Your task to perform on an android device: create a new album in the google photos Image 0: 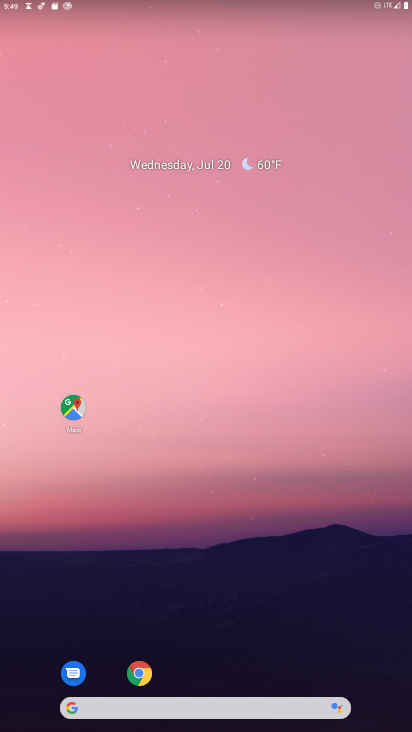
Step 0: drag from (199, 637) to (186, 116)
Your task to perform on an android device: create a new album in the google photos Image 1: 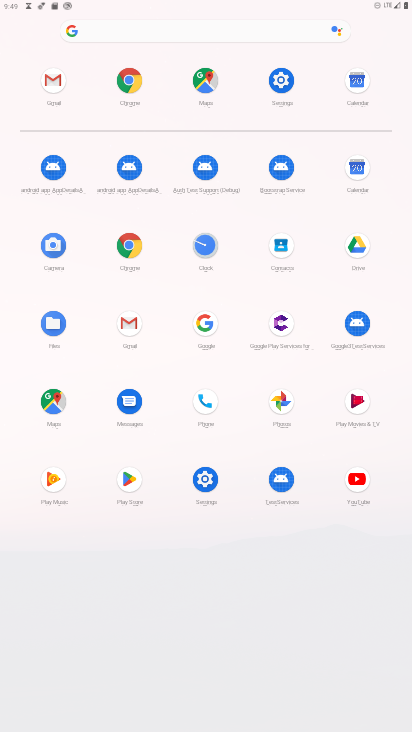
Step 1: click (281, 404)
Your task to perform on an android device: create a new album in the google photos Image 2: 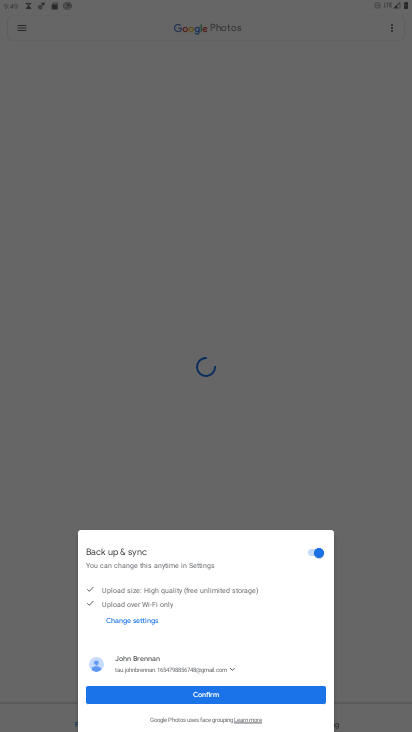
Step 2: click (243, 695)
Your task to perform on an android device: create a new album in the google photos Image 3: 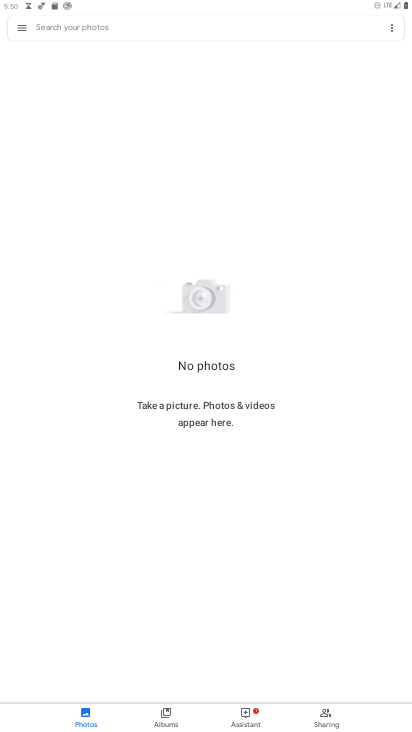
Step 3: press home button
Your task to perform on an android device: create a new album in the google photos Image 4: 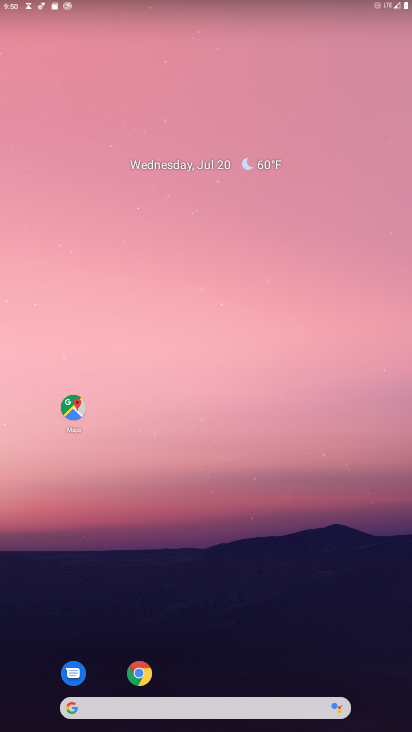
Step 4: drag from (184, 437) to (226, 44)
Your task to perform on an android device: create a new album in the google photos Image 5: 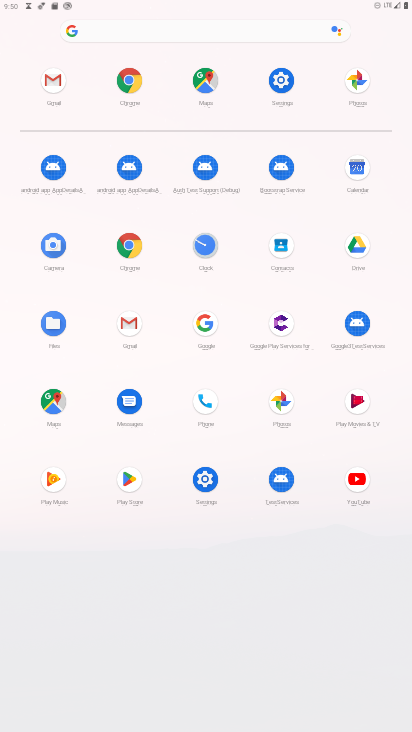
Step 5: click (354, 103)
Your task to perform on an android device: create a new album in the google photos Image 6: 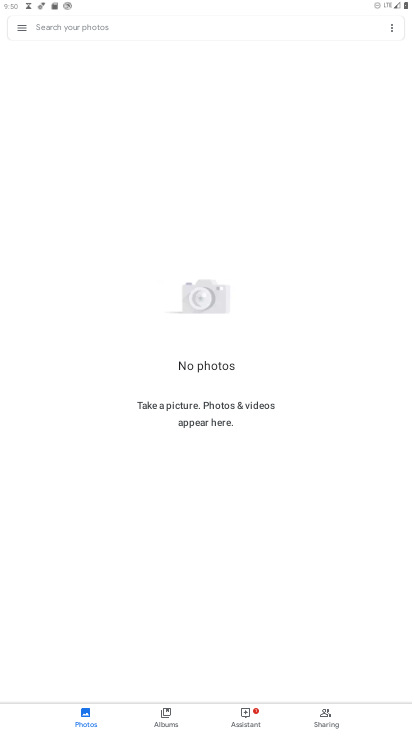
Step 6: task complete